Your task to perform on an android device: open sync settings in chrome Image 0: 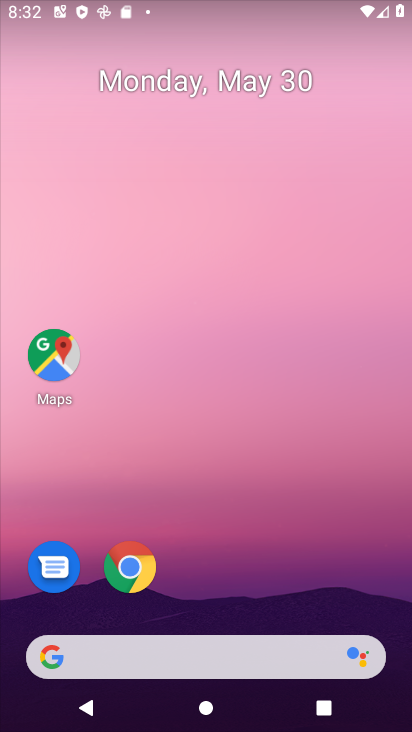
Step 0: click (129, 577)
Your task to perform on an android device: open sync settings in chrome Image 1: 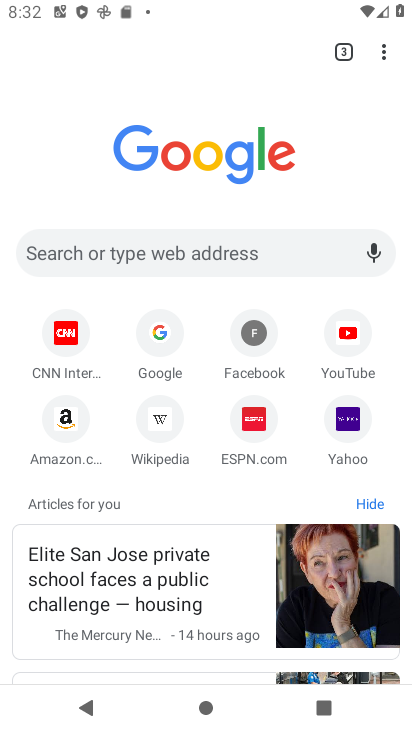
Step 1: click (378, 61)
Your task to perform on an android device: open sync settings in chrome Image 2: 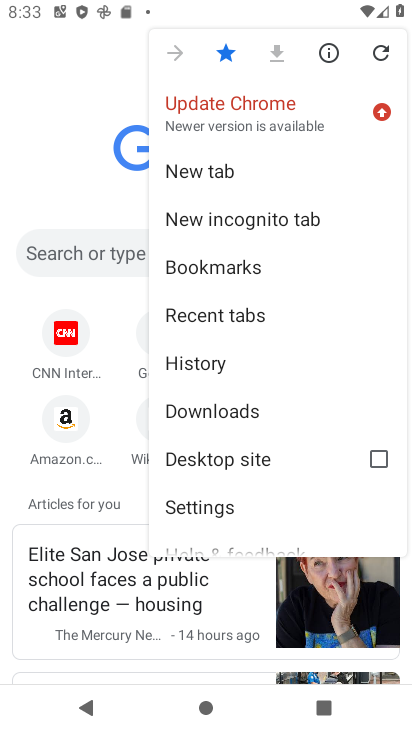
Step 2: click (264, 499)
Your task to perform on an android device: open sync settings in chrome Image 3: 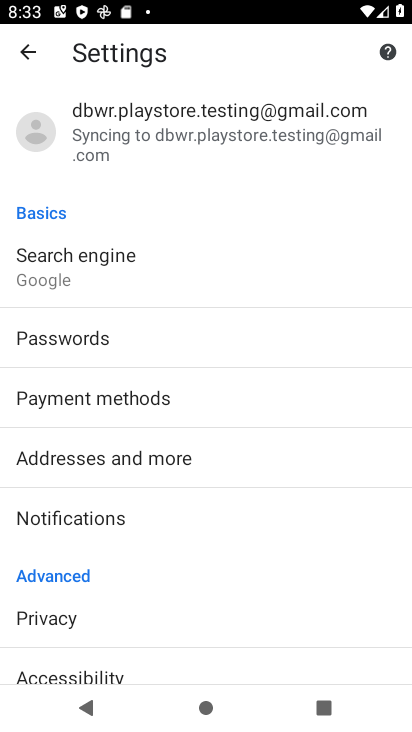
Step 3: task complete